Your task to perform on an android device: Add "usb-c to usb-b" to the cart on target.com Image 0: 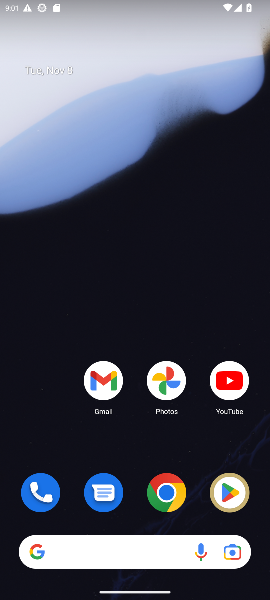
Step 0: click (171, 493)
Your task to perform on an android device: Add "usb-c to usb-b" to the cart on target.com Image 1: 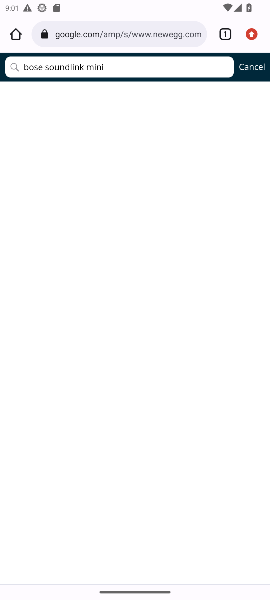
Step 1: click (172, 37)
Your task to perform on an android device: Add "usb-c to usb-b" to the cart on target.com Image 2: 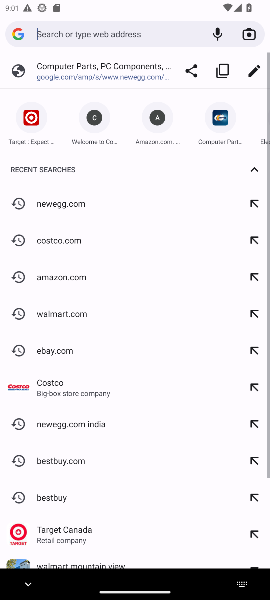
Step 2: click (53, 535)
Your task to perform on an android device: Add "usb-c to usb-b" to the cart on target.com Image 3: 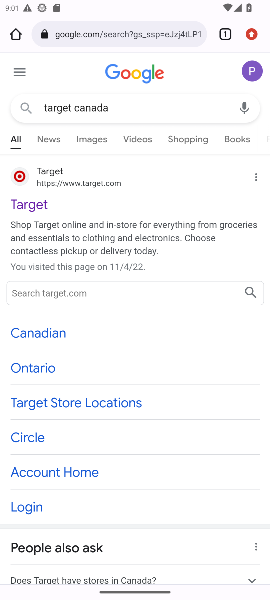
Step 3: click (98, 180)
Your task to perform on an android device: Add "usb-c to usb-b" to the cart on target.com Image 4: 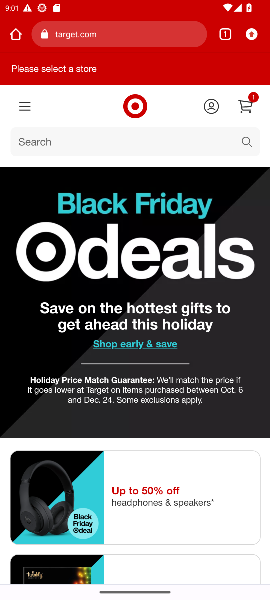
Step 4: click (245, 141)
Your task to perform on an android device: Add "usb-c to usb-b" to the cart on target.com Image 5: 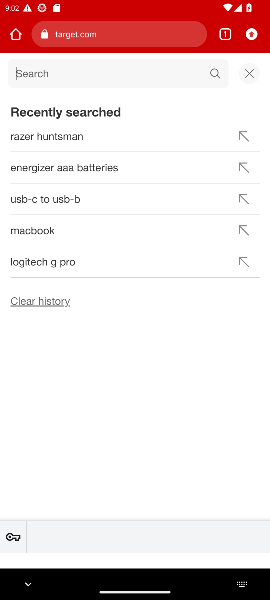
Step 5: type "usb-c to usb-b"
Your task to perform on an android device: Add "usb-c to usb-b" to the cart on target.com Image 6: 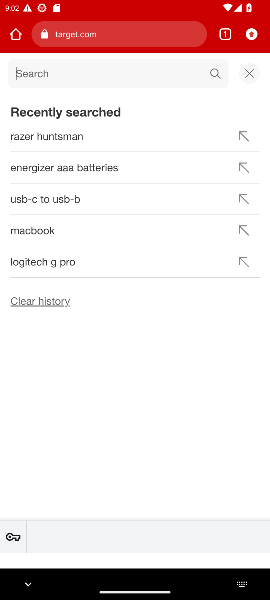
Step 6: press enter
Your task to perform on an android device: Add "usb-c to usb-b" to the cart on target.com Image 7: 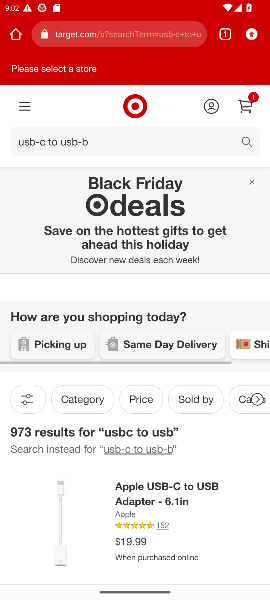
Step 7: drag from (170, 532) to (227, 268)
Your task to perform on an android device: Add "usb-c to usb-b" to the cart on target.com Image 8: 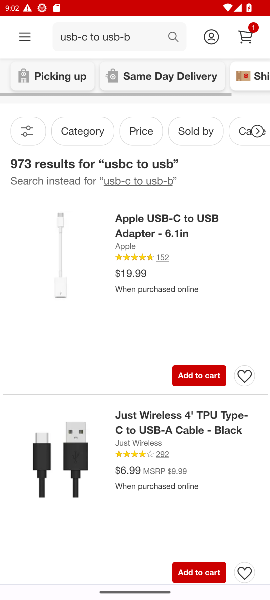
Step 8: drag from (192, 449) to (175, 244)
Your task to perform on an android device: Add "usb-c to usb-b" to the cart on target.com Image 9: 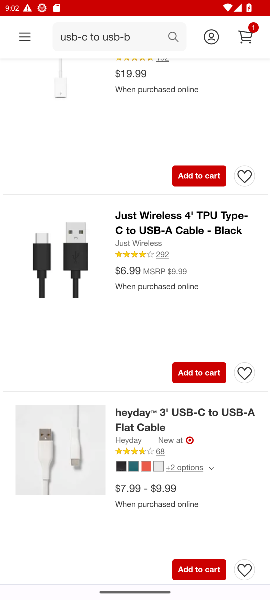
Step 9: click (41, 451)
Your task to perform on an android device: Add "usb-c to usb-b" to the cart on target.com Image 10: 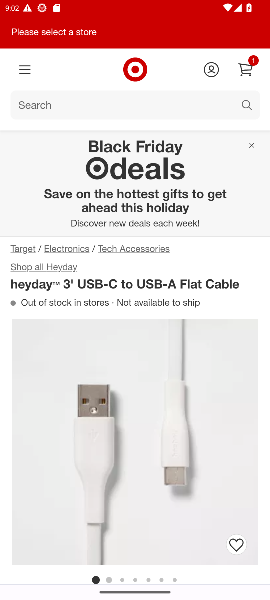
Step 10: drag from (184, 409) to (165, 136)
Your task to perform on an android device: Add "usb-c to usb-b" to the cart on target.com Image 11: 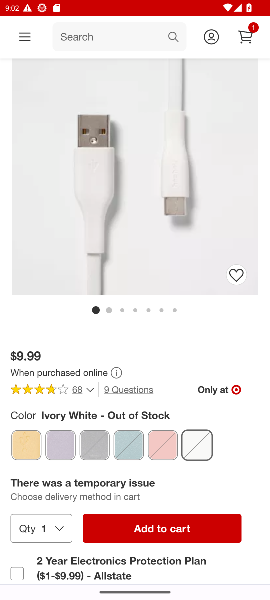
Step 11: click (185, 526)
Your task to perform on an android device: Add "usb-c to usb-b" to the cart on target.com Image 12: 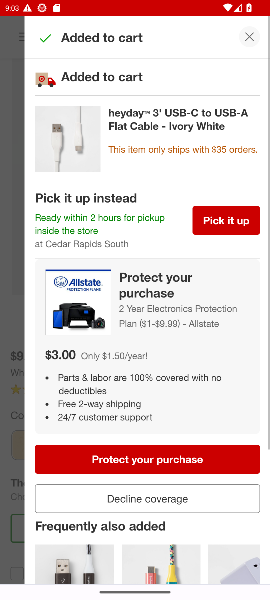
Step 12: click (248, 33)
Your task to perform on an android device: Add "usb-c to usb-b" to the cart on target.com Image 13: 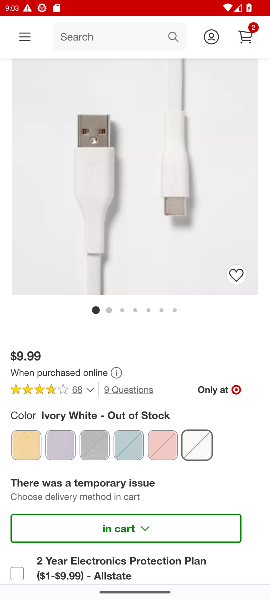
Step 13: click (242, 39)
Your task to perform on an android device: Add "usb-c to usb-b" to the cart on target.com Image 14: 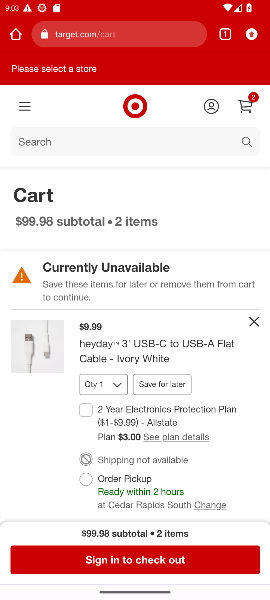
Step 14: click (187, 558)
Your task to perform on an android device: Add "usb-c to usb-b" to the cart on target.com Image 15: 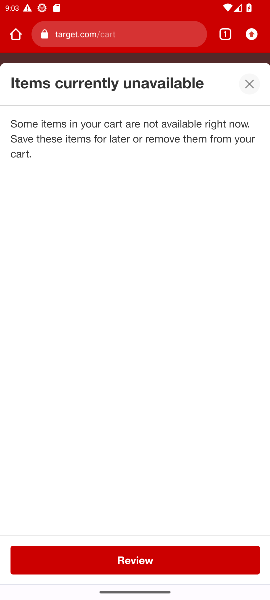
Step 15: task complete